Your task to perform on an android device: refresh tabs in the chrome app Image 0: 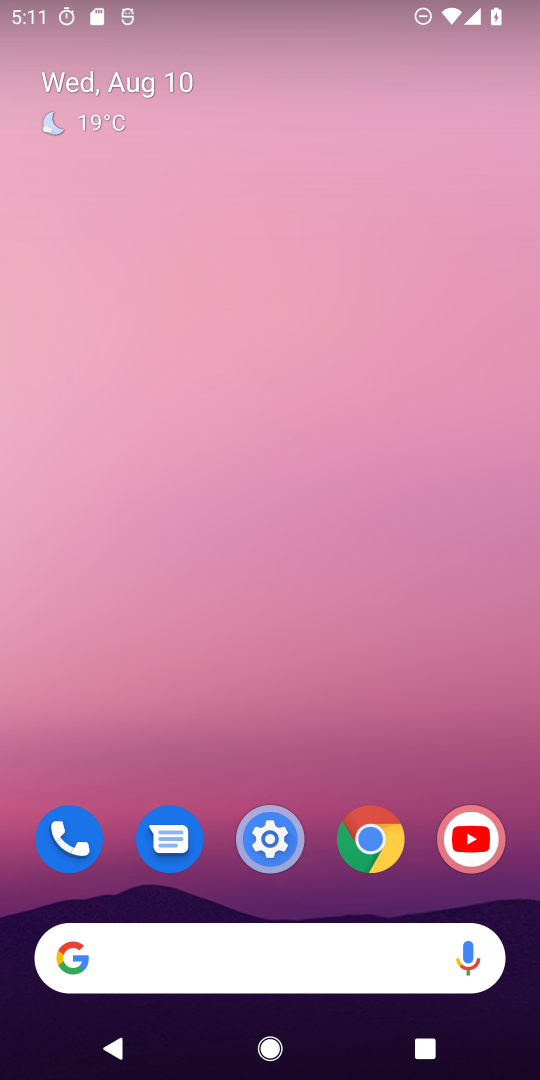
Step 0: click (370, 825)
Your task to perform on an android device: refresh tabs in the chrome app Image 1: 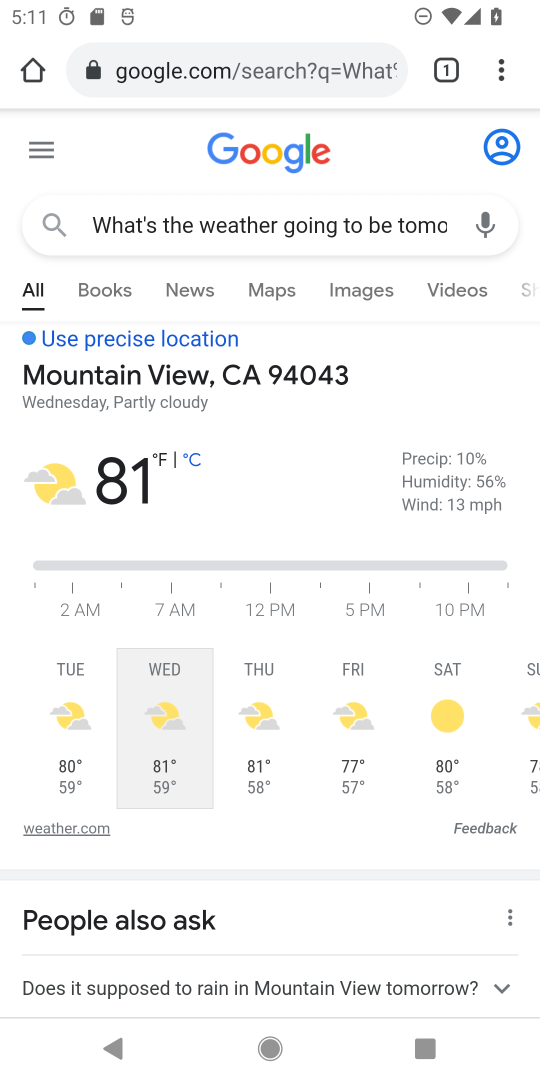
Step 1: click (508, 71)
Your task to perform on an android device: refresh tabs in the chrome app Image 2: 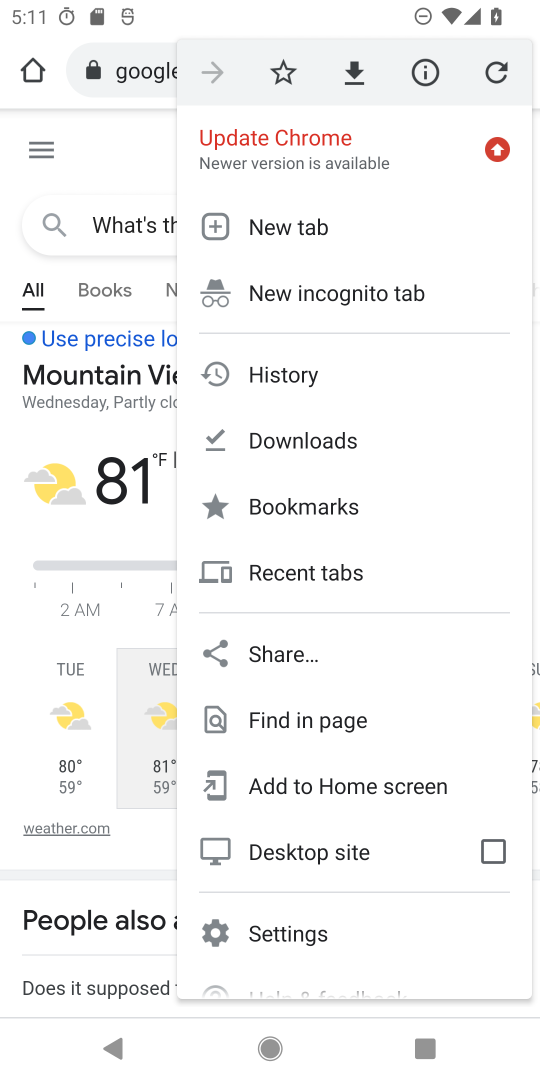
Step 2: click (496, 81)
Your task to perform on an android device: refresh tabs in the chrome app Image 3: 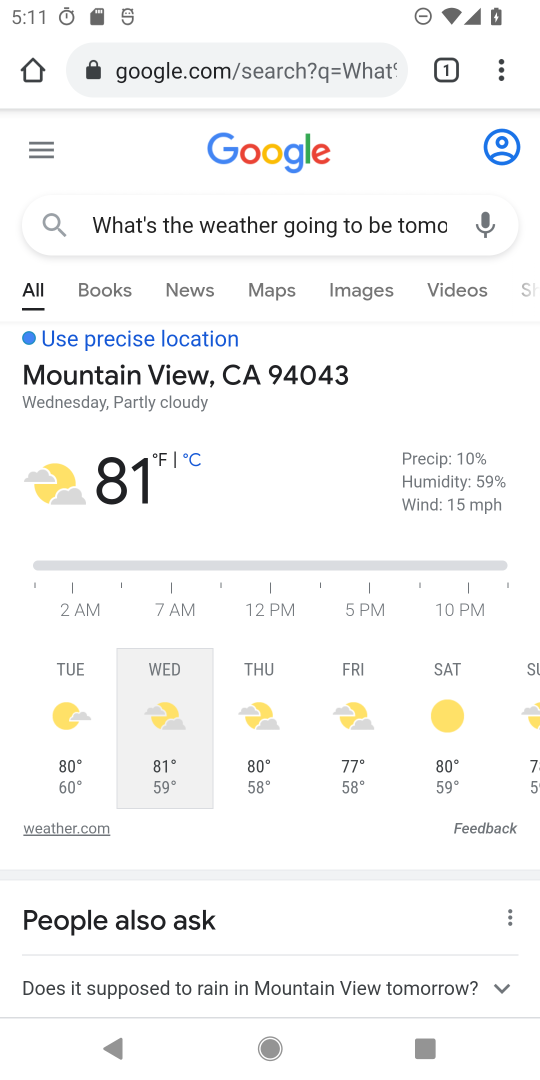
Step 3: task complete